Your task to perform on an android device: turn vacation reply on in the gmail app Image 0: 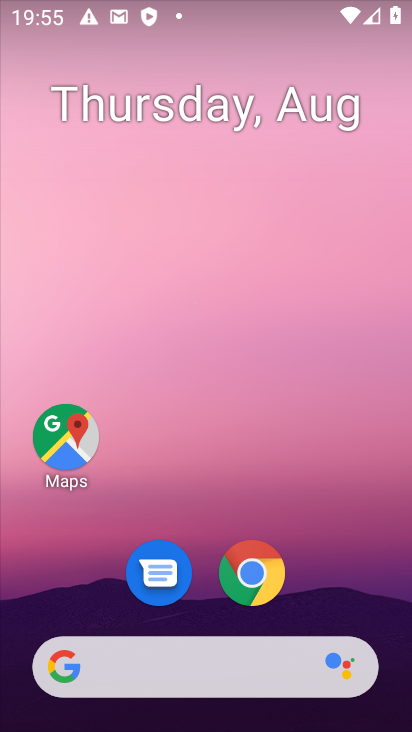
Step 0: drag from (247, 656) to (260, 275)
Your task to perform on an android device: turn vacation reply on in the gmail app Image 1: 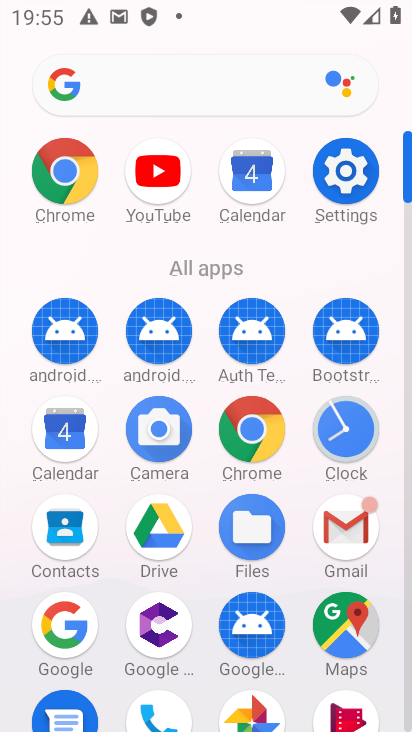
Step 1: click (350, 549)
Your task to perform on an android device: turn vacation reply on in the gmail app Image 2: 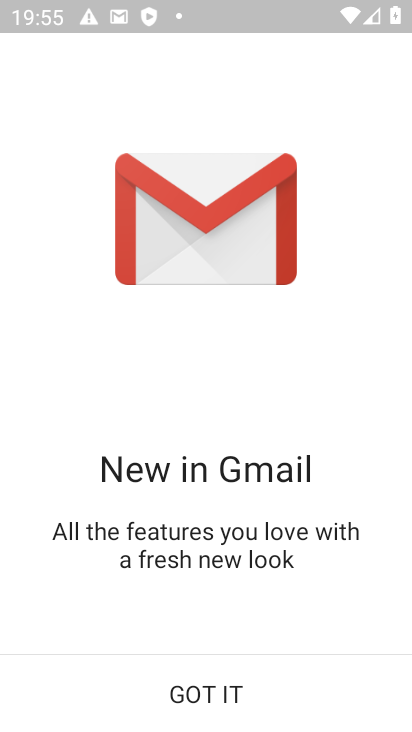
Step 2: click (216, 724)
Your task to perform on an android device: turn vacation reply on in the gmail app Image 3: 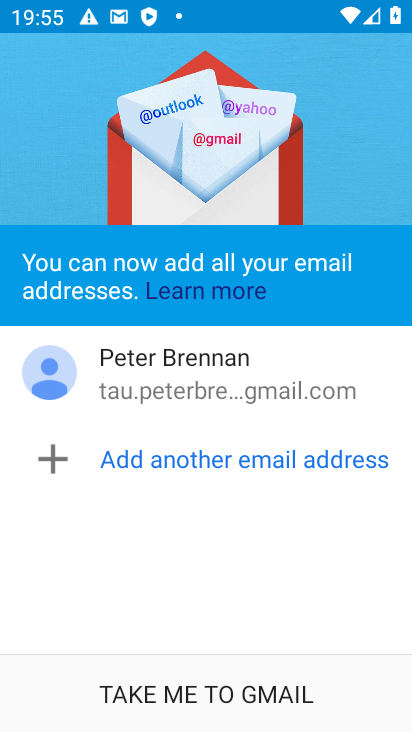
Step 3: click (258, 704)
Your task to perform on an android device: turn vacation reply on in the gmail app Image 4: 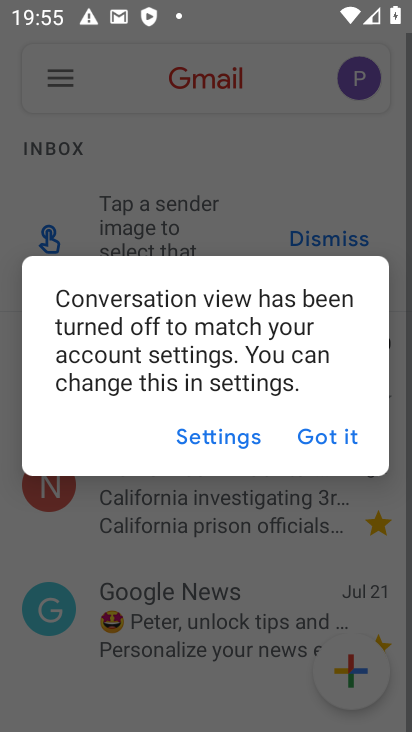
Step 4: click (337, 435)
Your task to perform on an android device: turn vacation reply on in the gmail app Image 5: 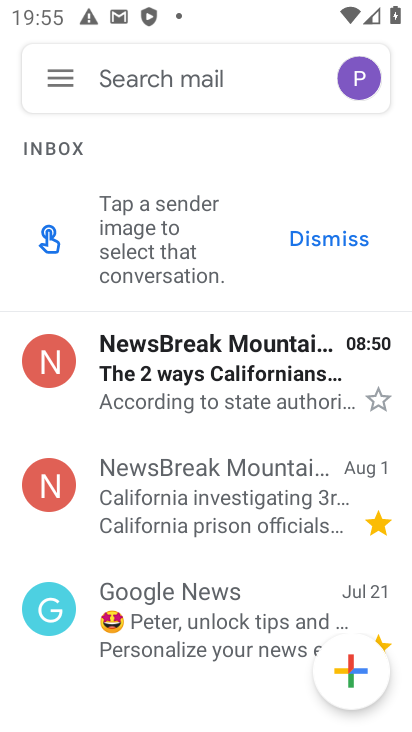
Step 5: click (62, 77)
Your task to perform on an android device: turn vacation reply on in the gmail app Image 6: 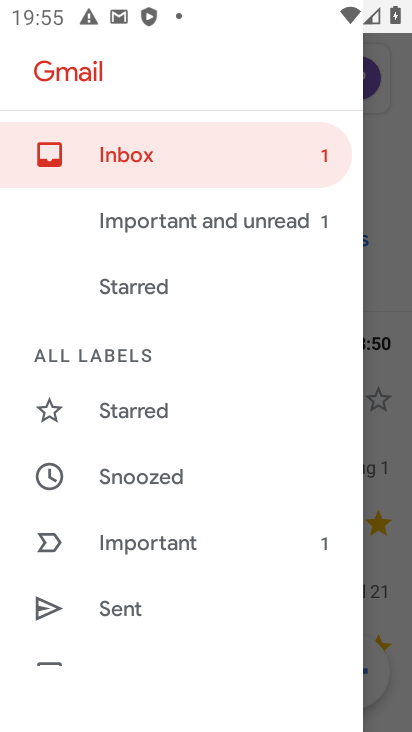
Step 6: drag from (182, 578) to (138, 201)
Your task to perform on an android device: turn vacation reply on in the gmail app Image 7: 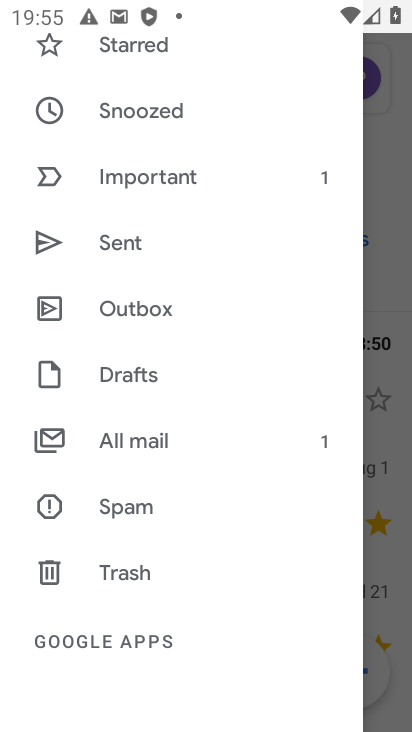
Step 7: drag from (181, 566) to (185, 172)
Your task to perform on an android device: turn vacation reply on in the gmail app Image 8: 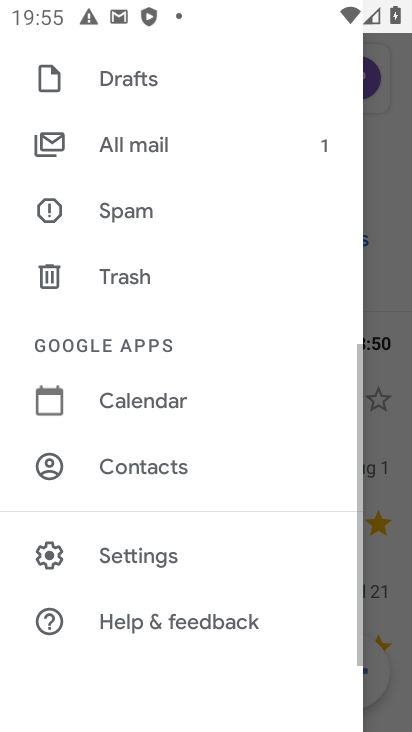
Step 8: click (158, 562)
Your task to perform on an android device: turn vacation reply on in the gmail app Image 9: 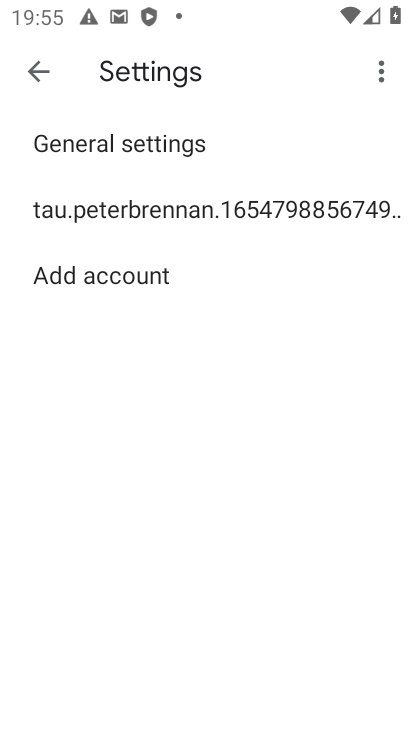
Step 9: click (264, 212)
Your task to perform on an android device: turn vacation reply on in the gmail app Image 10: 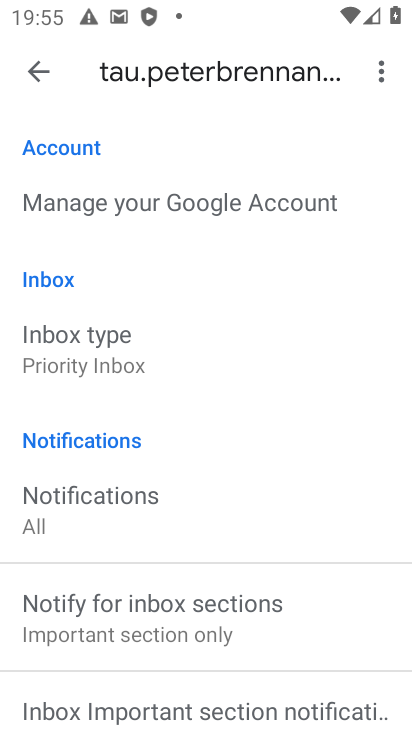
Step 10: drag from (266, 611) to (95, 87)
Your task to perform on an android device: turn vacation reply on in the gmail app Image 11: 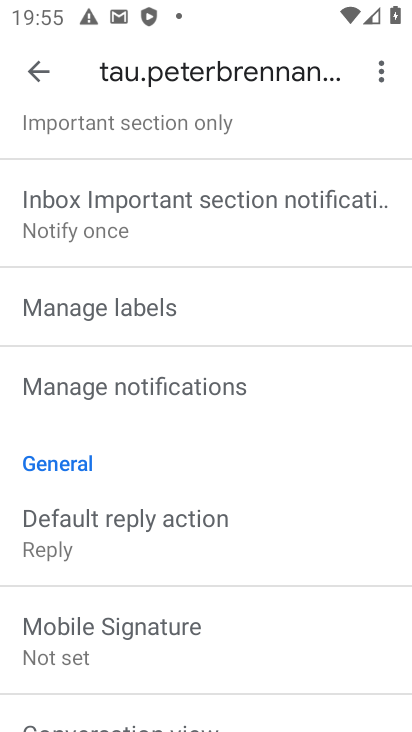
Step 11: drag from (232, 583) to (206, 266)
Your task to perform on an android device: turn vacation reply on in the gmail app Image 12: 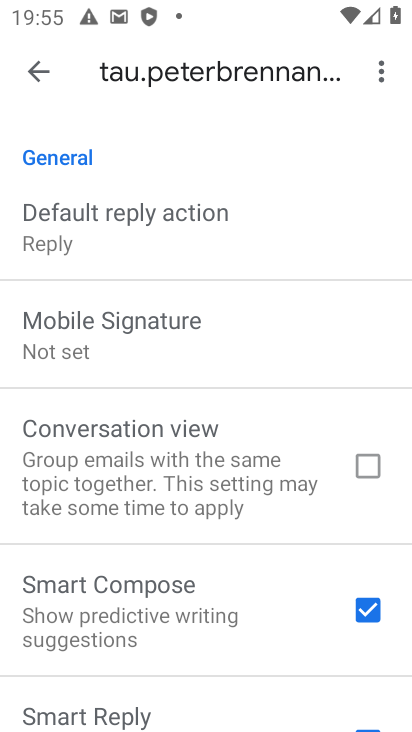
Step 12: drag from (240, 621) to (216, 163)
Your task to perform on an android device: turn vacation reply on in the gmail app Image 13: 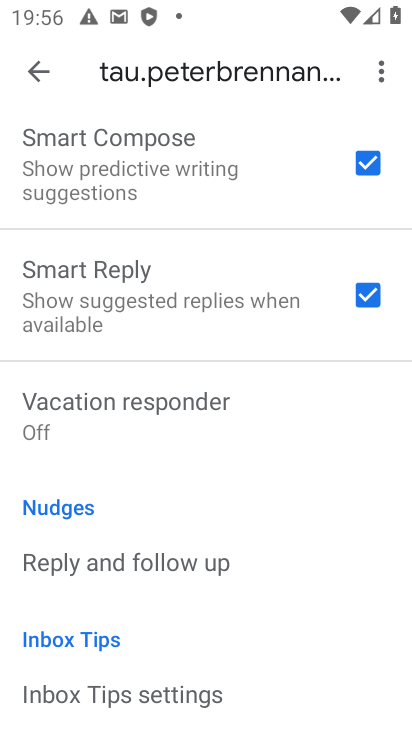
Step 13: click (273, 403)
Your task to perform on an android device: turn vacation reply on in the gmail app Image 14: 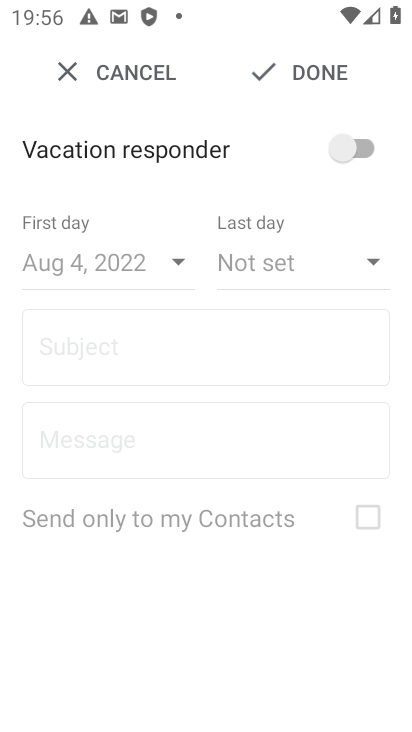
Step 14: click (333, 142)
Your task to perform on an android device: turn vacation reply on in the gmail app Image 15: 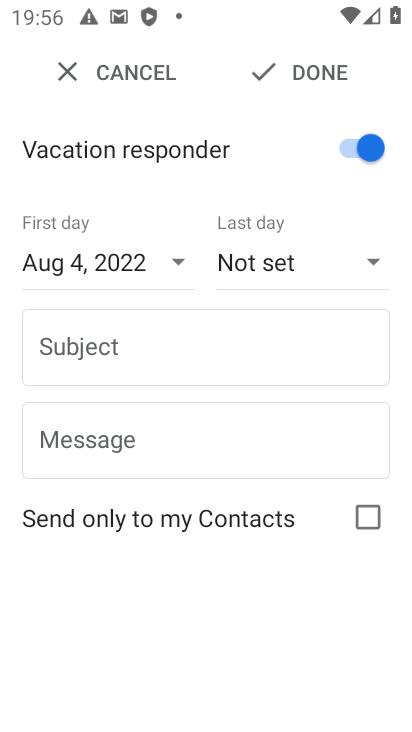
Step 15: click (303, 56)
Your task to perform on an android device: turn vacation reply on in the gmail app Image 16: 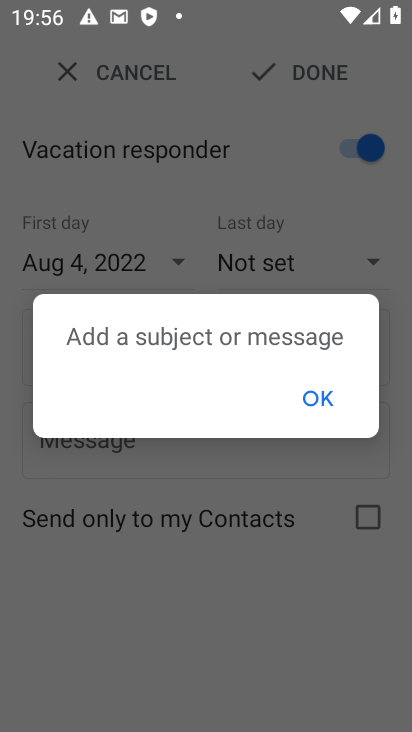
Step 16: click (318, 399)
Your task to perform on an android device: turn vacation reply on in the gmail app Image 17: 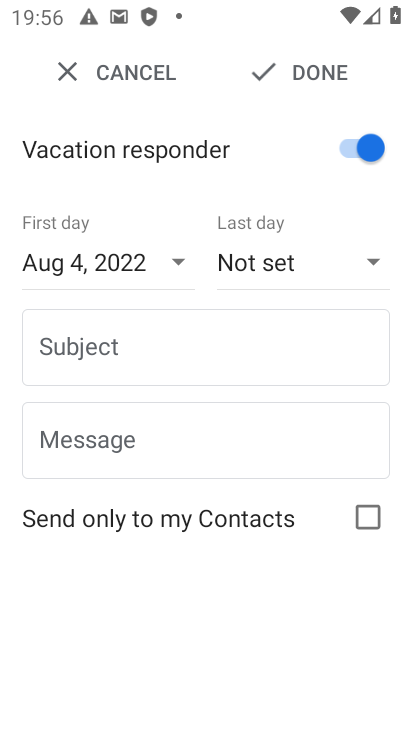
Step 17: task complete